Your task to perform on an android device: delete browsing data in the chrome app Image 0: 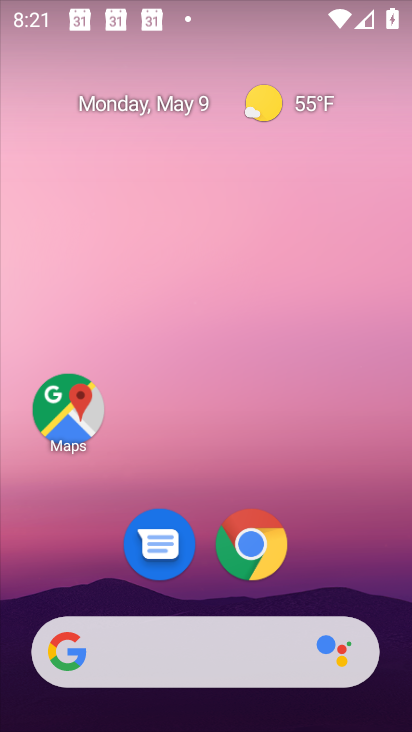
Step 0: click (236, 530)
Your task to perform on an android device: delete browsing data in the chrome app Image 1: 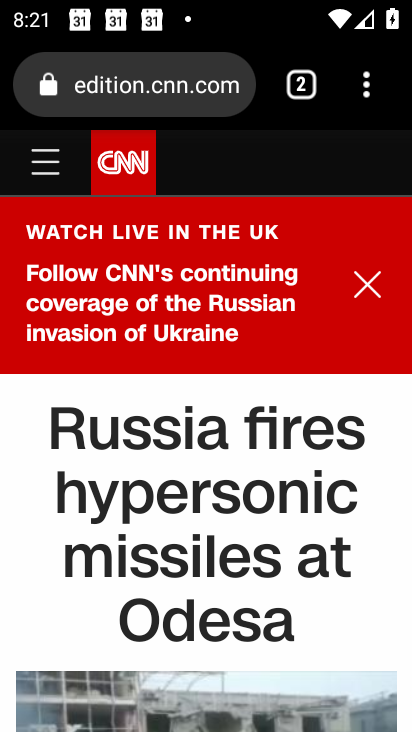
Step 1: drag from (370, 90) to (112, 462)
Your task to perform on an android device: delete browsing data in the chrome app Image 2: 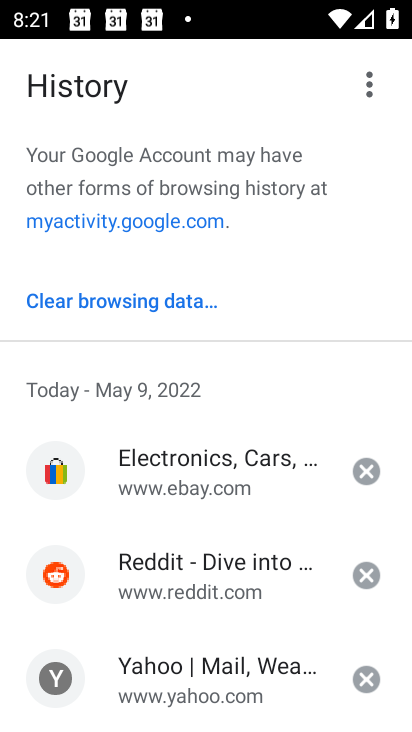
Step 2: click (102, 299)
Your task to perform on an android device: delete browsing data in the chrome app Image 3: 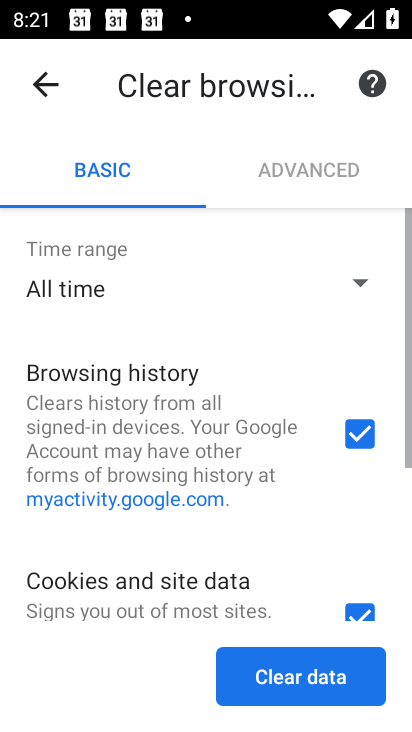
Step 3: click (307, 666)
Your task to perform on an android device: delete browsing data in the chrome app Image 4: 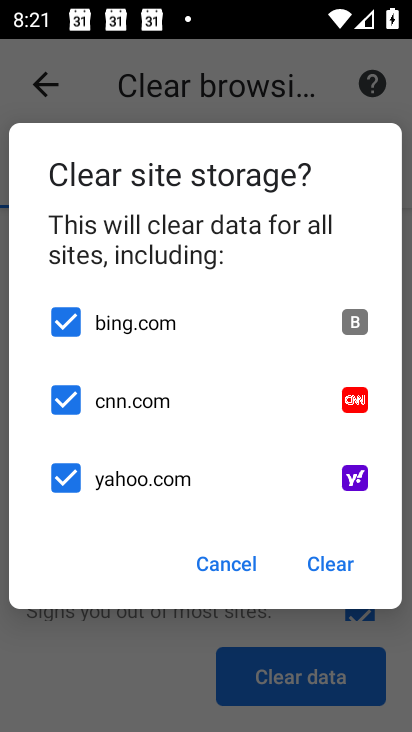
Step 4: click (335, 554)
Your task to perform on an android device: delete browsing data in the chrome app Image 5: 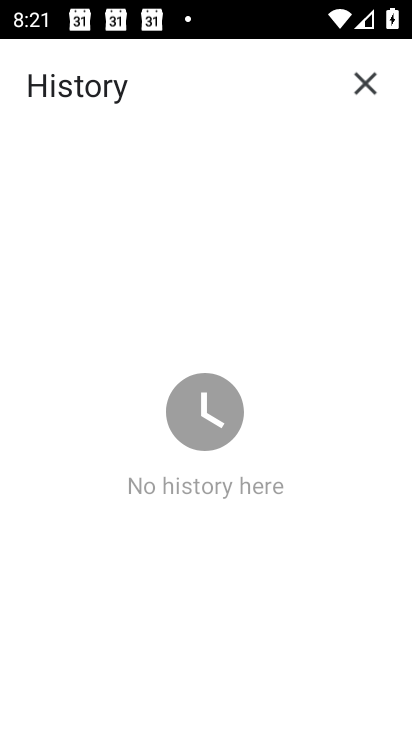
Step 5: task complete